Your task to perform on an android device: Open calendar and show me the second week of next month Image 0: 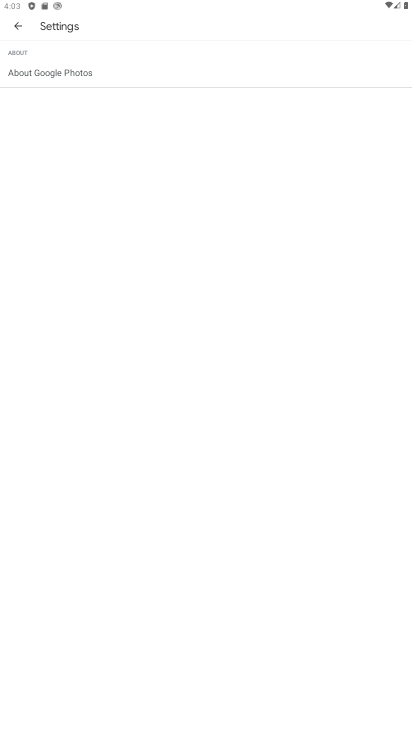
Step 0: press home button
Your task to perform on an android device: Open calendar and show me the second week of next month Image 1: 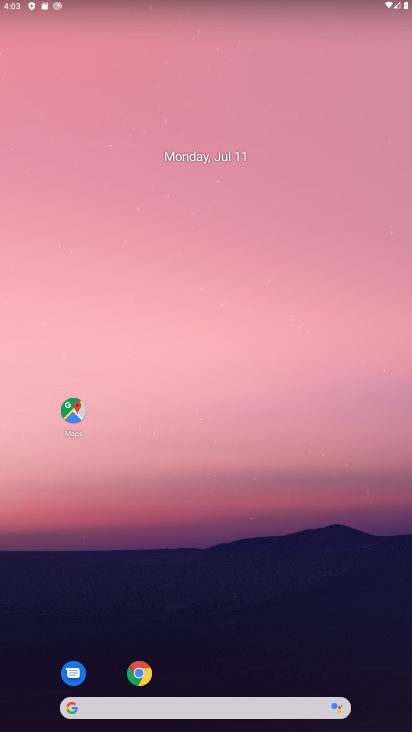
Step 1: drag from (323, 656) to (281, 126)
Your task to perform on an android device: Open calendar and show me the second week of next month Image 2: 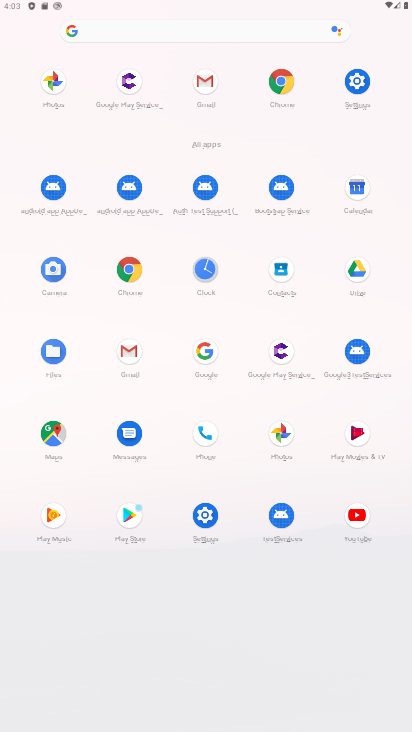
Step 2: click (365, 191)
Your task to perform on an android device: Open calendar and show me the second week of next month Image 3: 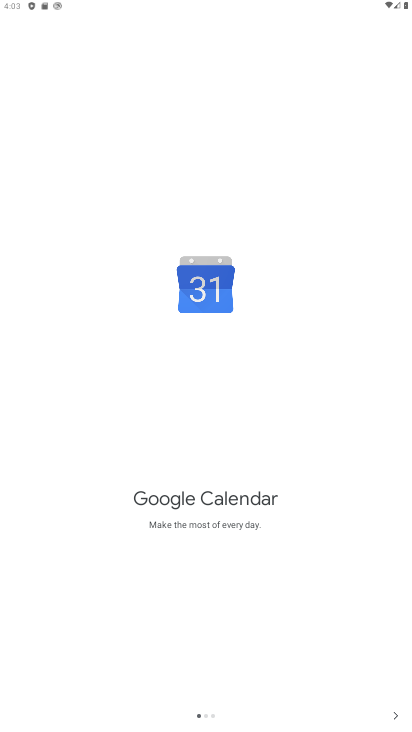
Step 3: click (395, 716)
Your task to perform on an android device: Open calendar and show me the second week of next month Image 4: 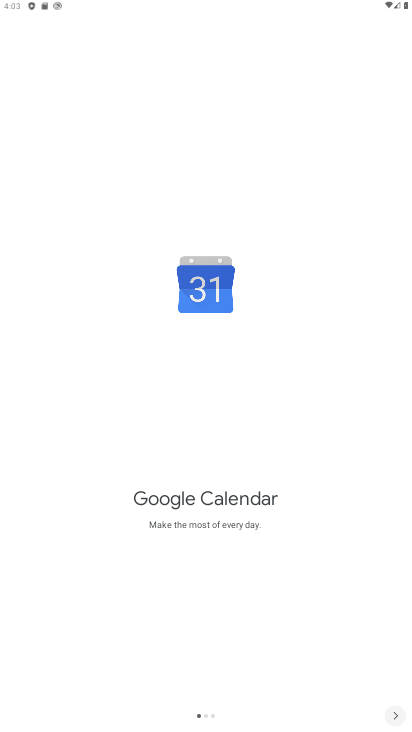
Step 4: click (395, 716)
Your task to perform on an android device: Open calendar and show me the second week of next month Image 5: 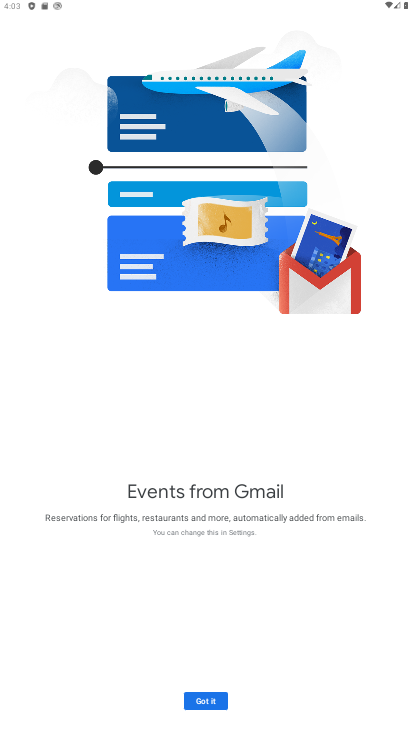
Step 5: click (223, 701)
Your task to perform on an android device: Open calendar and show me the second week of next month Image 6: 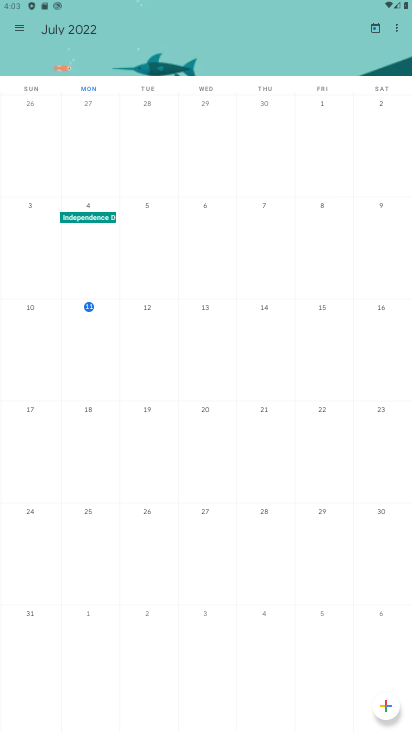
Step 6: drag from (382, 306) to (31, 262)
Your task to perform on an android device: Open calendar and show me the second week of next month Image 7: 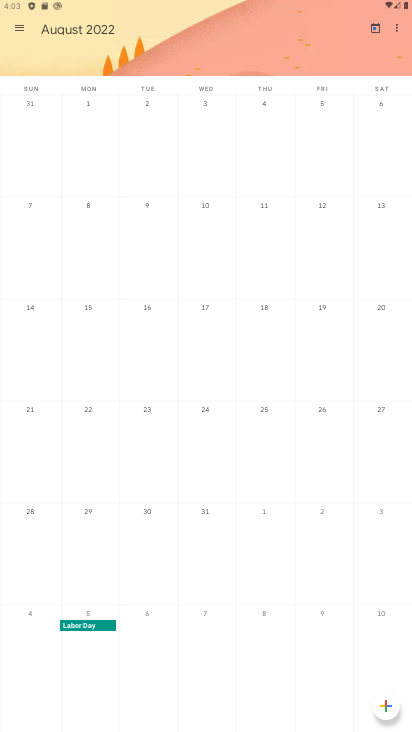
Step 7: click (146, 203)
Your task to perform on an android device: Open calendar and show me the second week of next month Image 8: 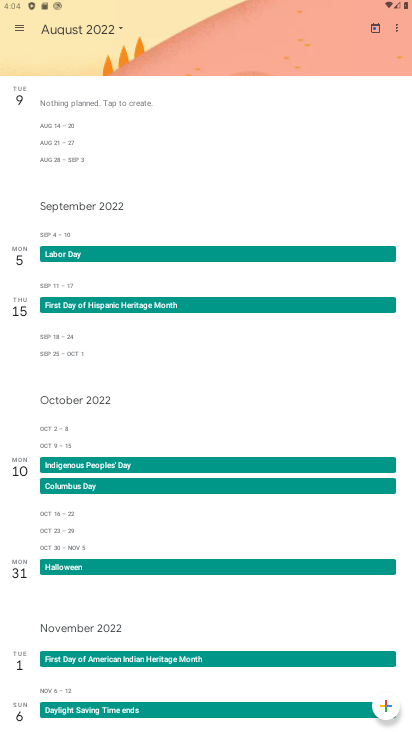
Step 8: task complete